Your task to perform on an android device: Go to Android settings Image 0: 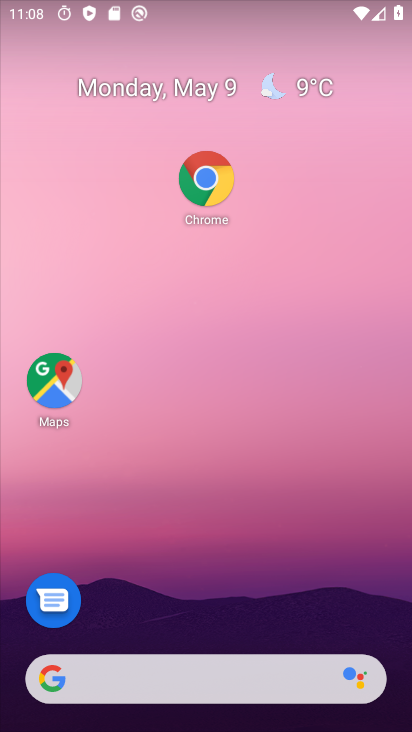
Step 0: drag from (205, 665) to (319, 197)
Your task to perform on an android device: Go to Android settings Image 1: 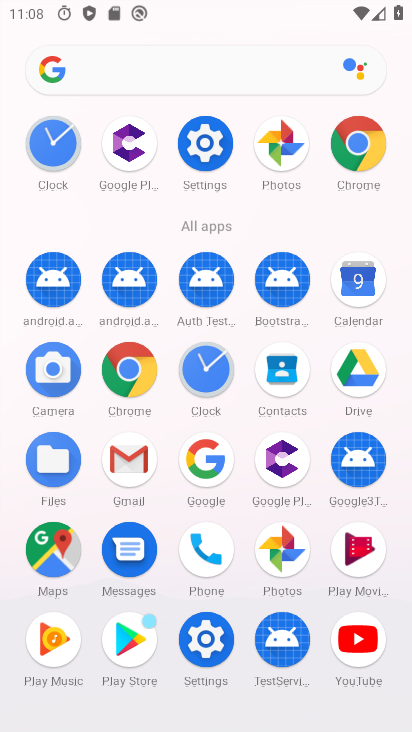
Step 1: drag from (283, 659) to (322, 489)
Your task to perform on an android device: Go to Android settings Image 2: 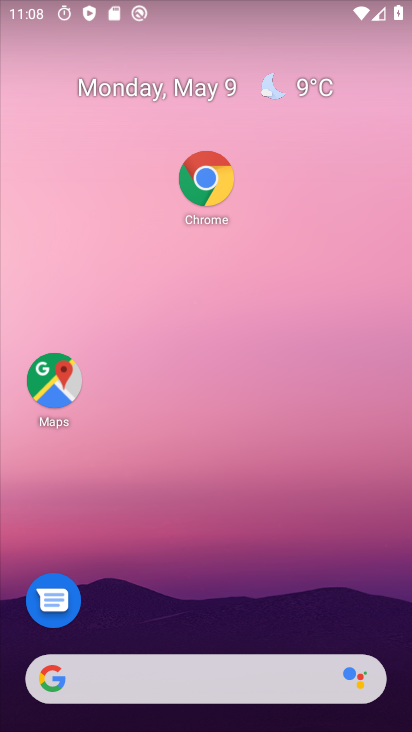
Step 2: click (217, 634)
Your task to perform on an android device: Go to Android settings Image 3: 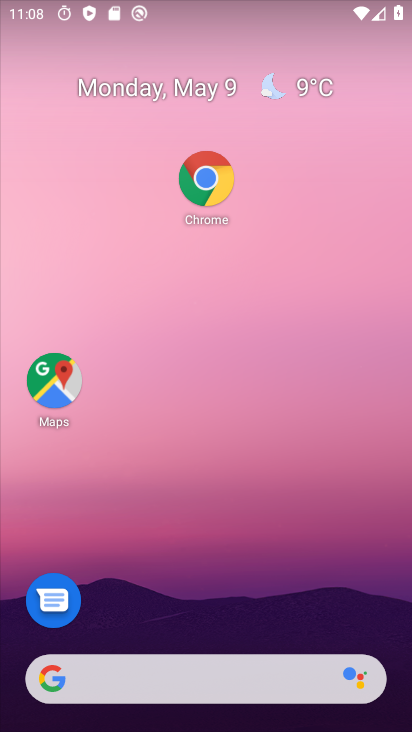
Step 3: drag from (212, 644) to (385, 108)
Your task to perform on an android device: Go to Android settings Image 4: 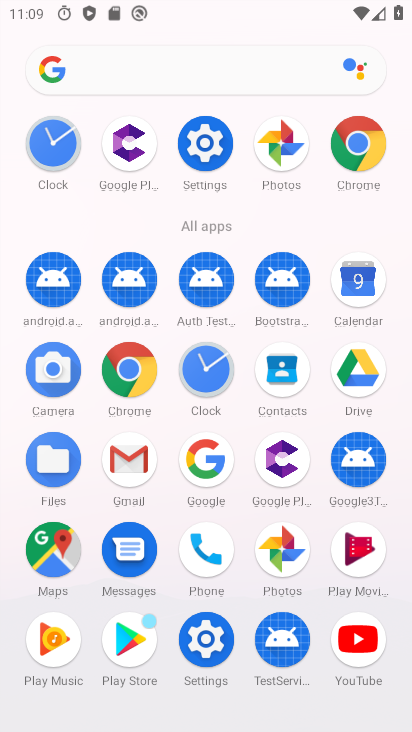
Step 4: click (219, 633)
Your task to perform on an android device: Go to Android settings Image 5: 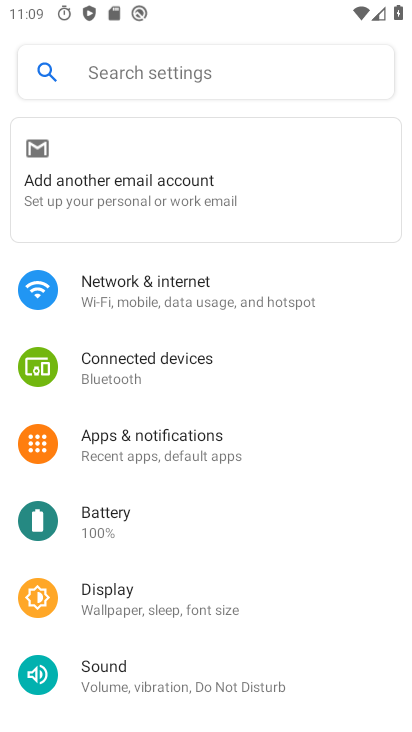
Step 5: task complete